Your task to perform on an android device: Go to CNN.com Image 0: 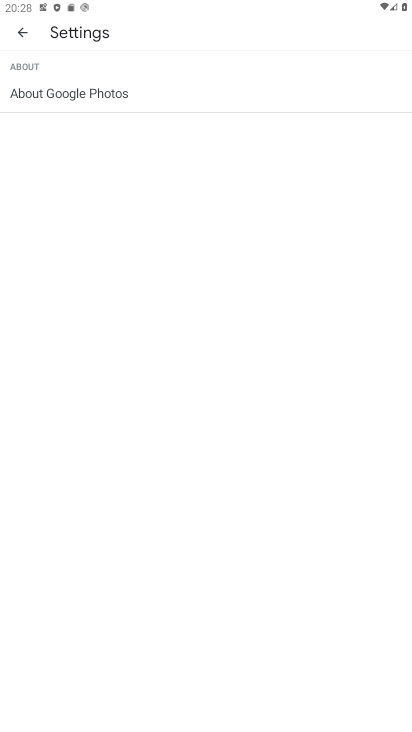
Step 0: press back button
Your task to perform on an android device: Go to CNN.com Image 1: 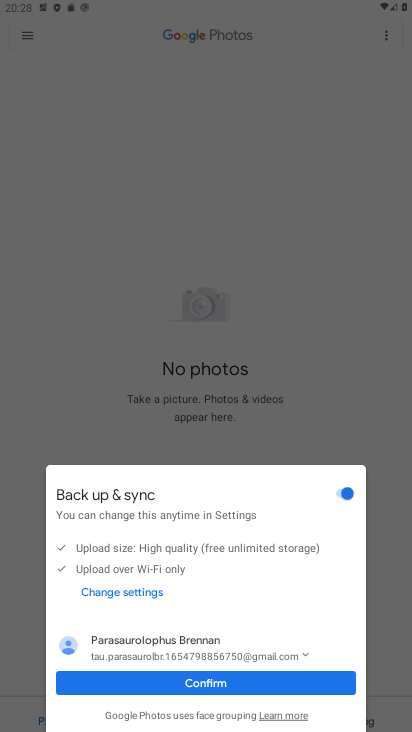
Step 1: press home button
Your task to perform on an android device: Go to CNN.com Image 2: 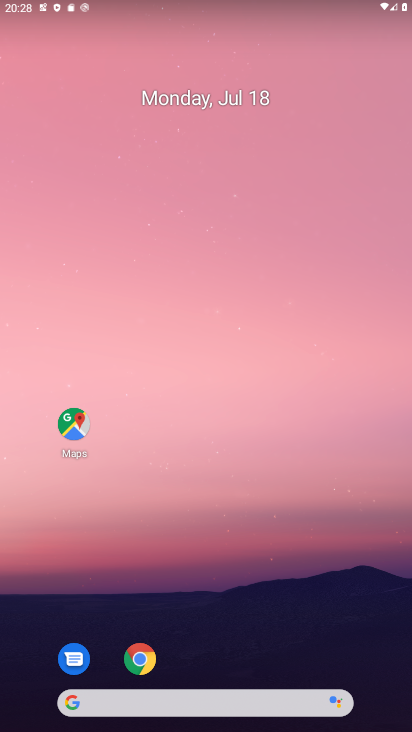
Step 2: drag from (259, 681) to (96, 145)
Your task to perform on an android device: Go to CNN.com Image 3: 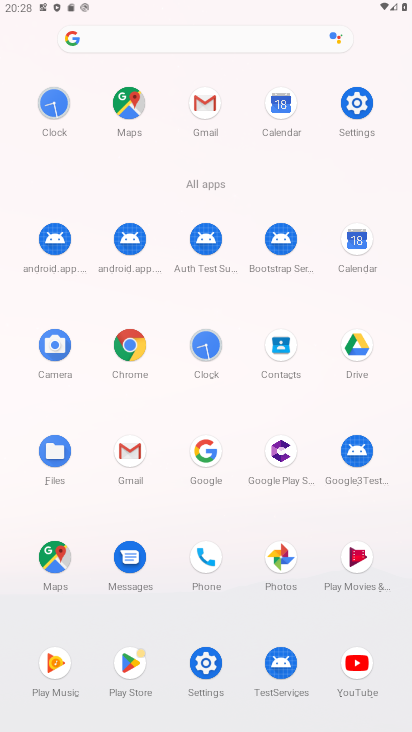
Step 3: click (354, 111)
Your task to perform on an android device: Go to CNN.com Image 4: 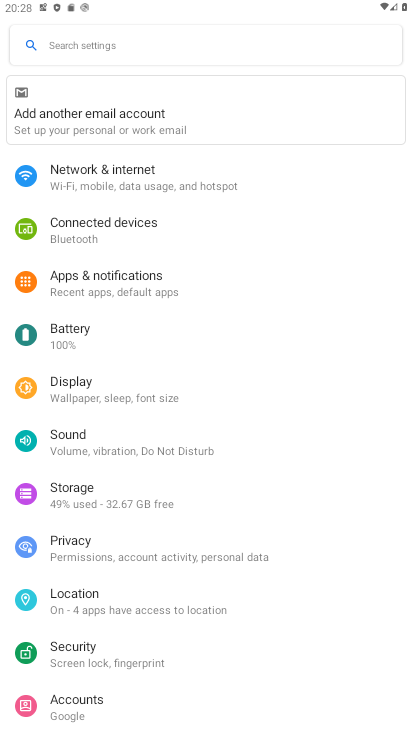
Step 4: press back button
Your task to perform on an android device: Go to CNN.com Image 5: 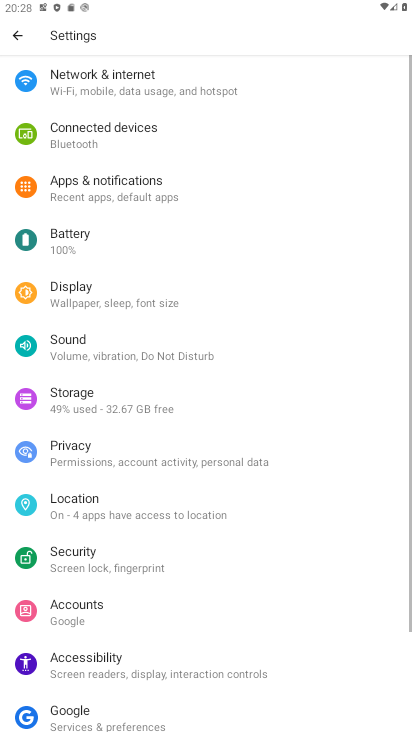
Step 5: press home button
Your task to perform on an android device: Go to CNN.com Image 6: 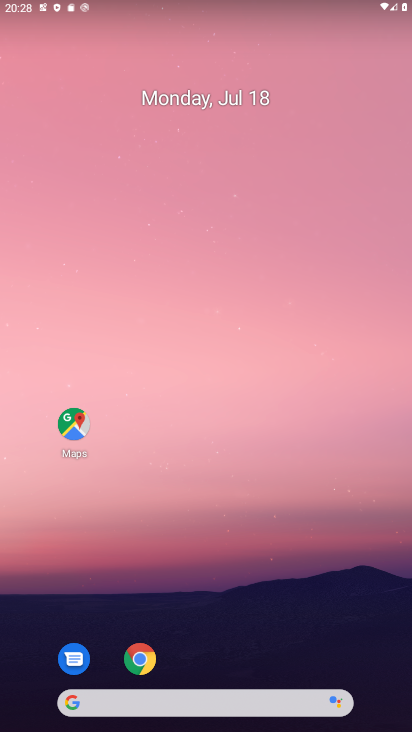
Step 6: drag from (242, 537) to (191, 160)
Your task to perform on an android device: Go to CNN.com Image 7: 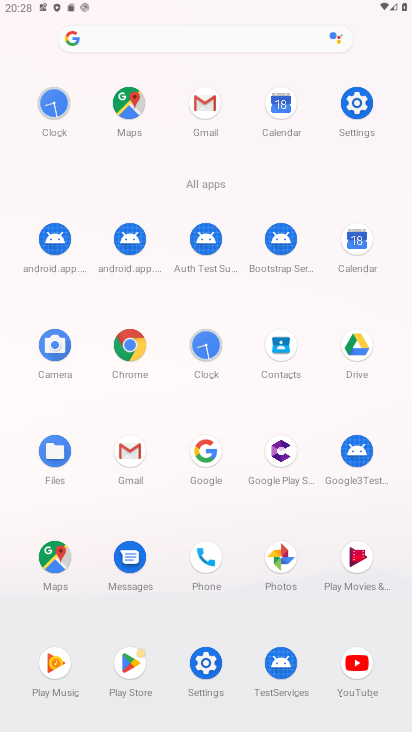
Step 7: click (356, 105)
Your task to perform on an android device: Go to CNN.com Image 8: 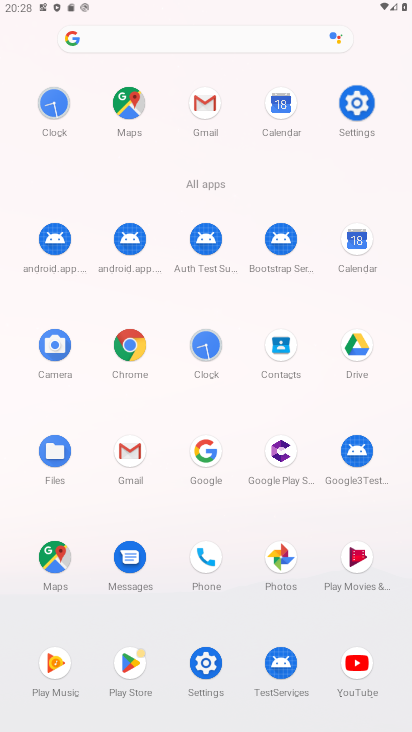
Step 8: click (357, 105)
Your task to perform on an android device: Go to CNN.com Image 9: 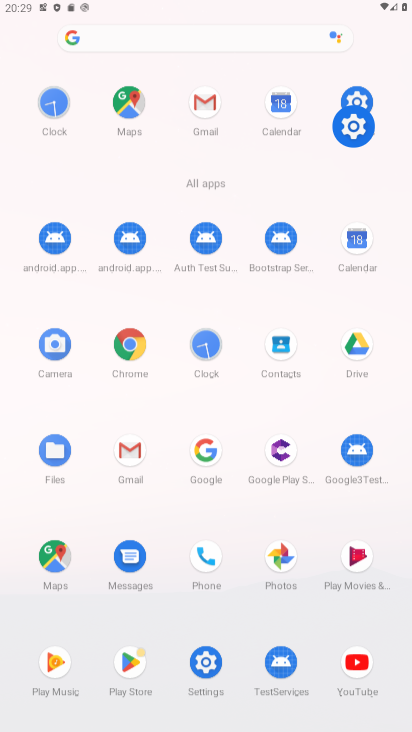
Step 9: click (359, 119)
Your task to perform on an android device: Go to CNN.com Image 10: 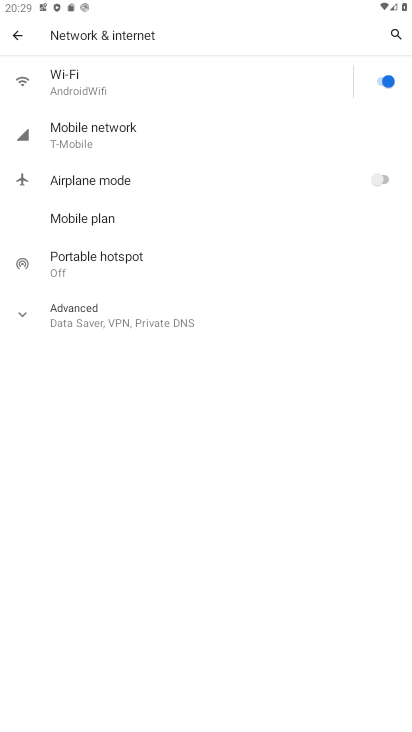
Step 10: press home button
Your task to perform on an android device: Go to CNN.com Image 11: 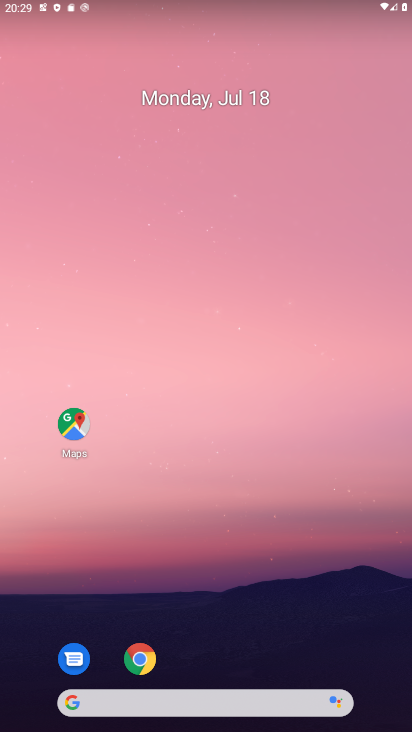
Step 11: click (199, 303)
Your task to perform on an android device: Go to CNN.com Image 12: 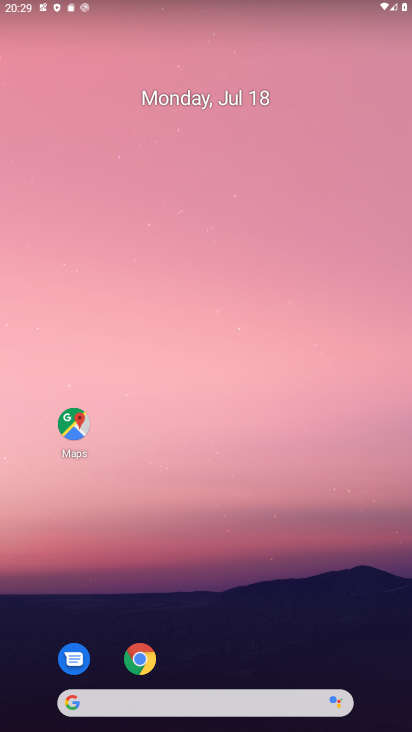
Step 12: drag from (287, 612) to (237, 167)
Your task to perform on an android device: Go to CNN.com Image 13: 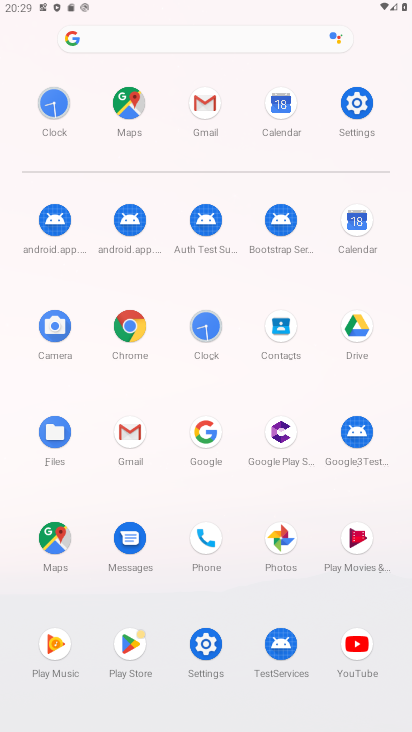
Step 13: drag from (178, 239) to (160, 117)
Your task to perform on an android device: Go to CNN.com Image 14: 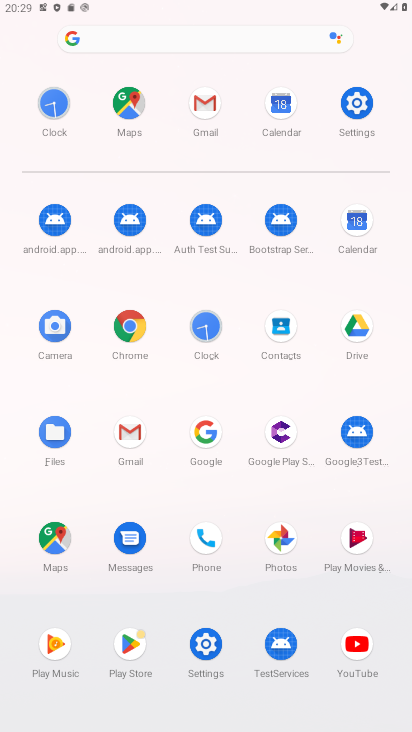
Step 14: click (137, 332)
Your task to perform on an android device: Go to CNN.com Image 15: 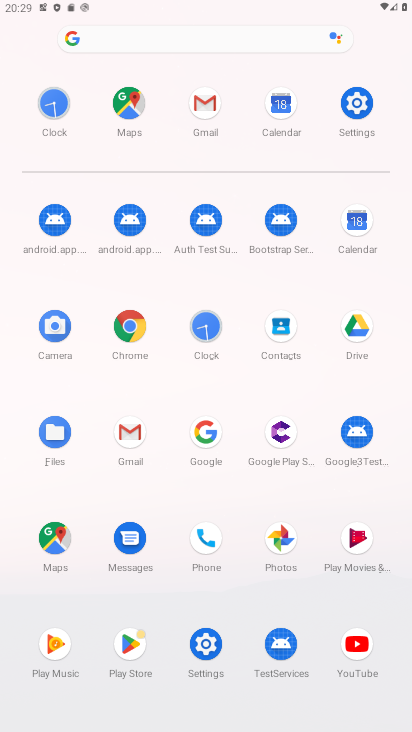
Step 15: click (137, 332)
Your task to perform on an android device: Go to CNN.com Image 16: 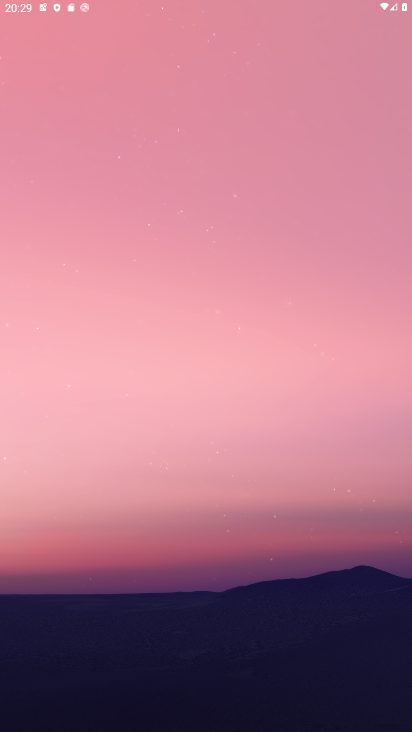
Step 16: click (137, 332)
Your task to perform on an android device: Go to CNN.com Image 17: 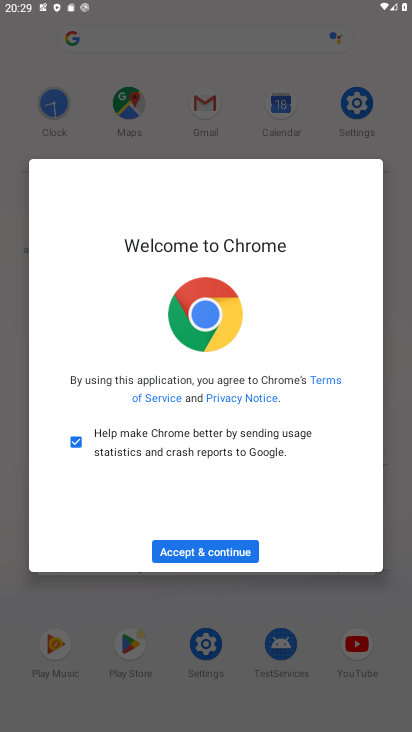
Step 17: click (240, 551)
Your task to perform on an android device: Go to CNN.com Image 18: 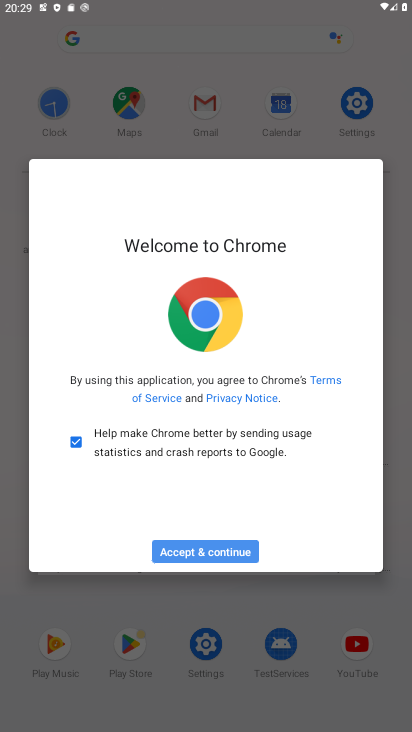
Step 18: click (240, 551)
Your task to perform on an android device: Go to CNN.com Image 19: 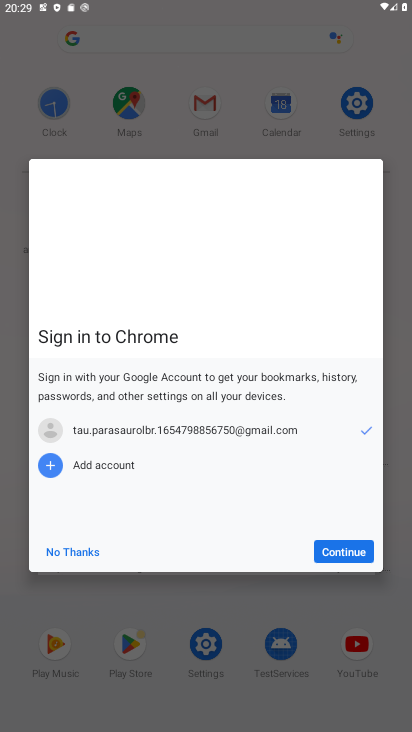
Step 19: click (331, 540)
Your task to perform on an android device: Go to CNN.com Image 20: 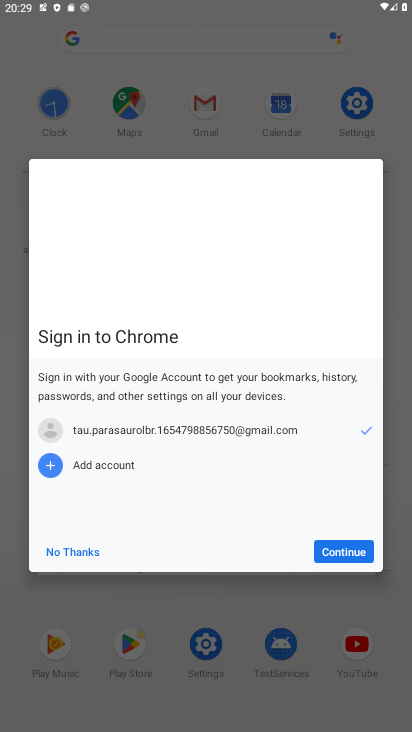
Step 20: click (341, 550)
Your task to perform on an android device: Go to CNN.com Image 21: 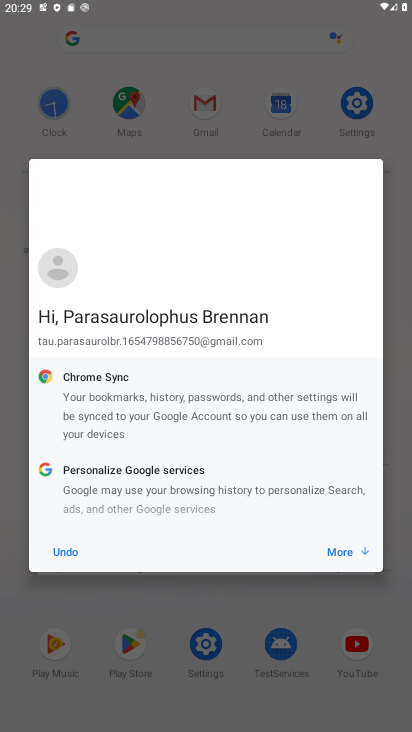
Step 21: click (347, 549)
Your task to perform on an android device: Go to CNN.com Image 22: 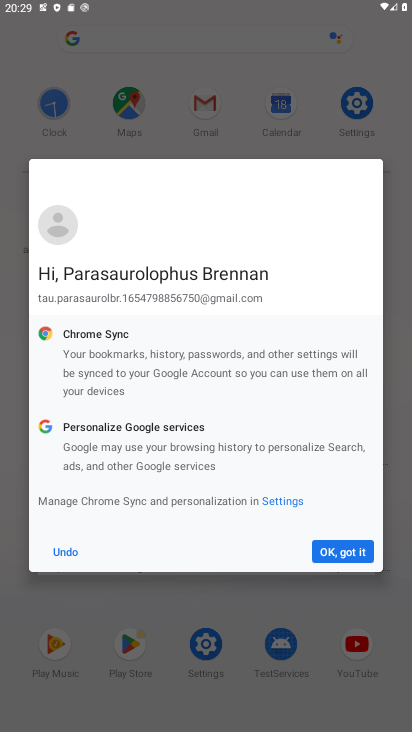
Step 22: click (348, 549)
Your task to perform on an android device: Go to CNN.com Image 23: 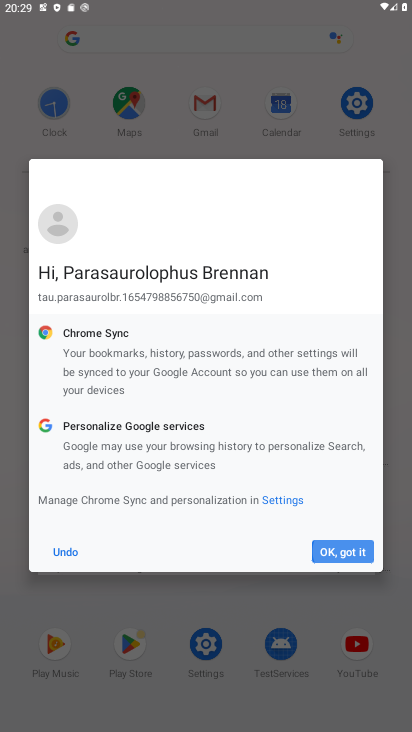
Step 23: click (348, 548)
Your task to perform on an android device: Go to CNN.com Image 24: 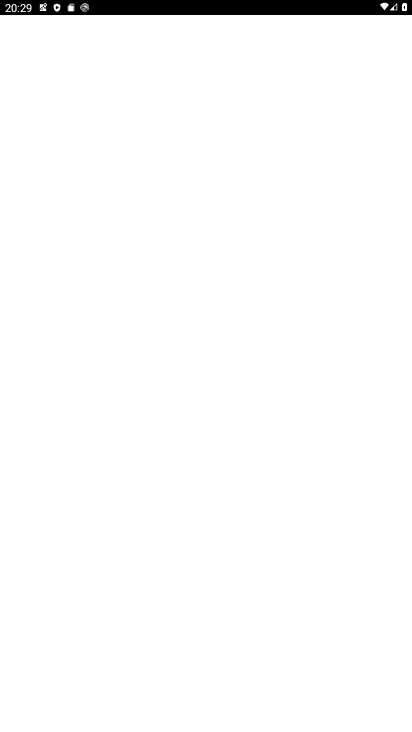
Step 24: click (352, 545)
Your task to perform on an android device: Go to CNN.com Image 25: 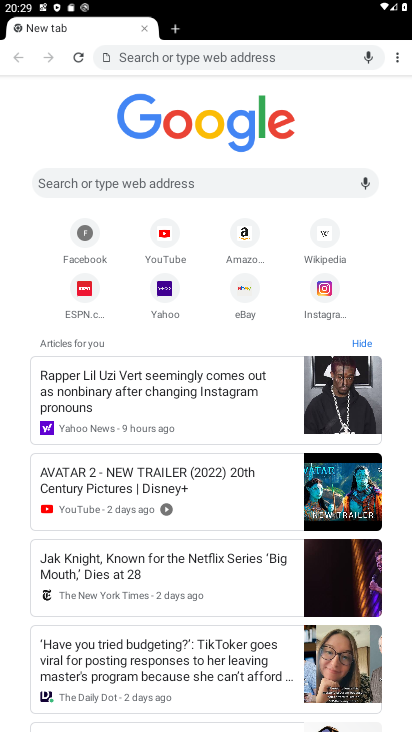
Step 25: type "CNN.com"
Your task to perform on an android device: Go to CNN.com Image 26: 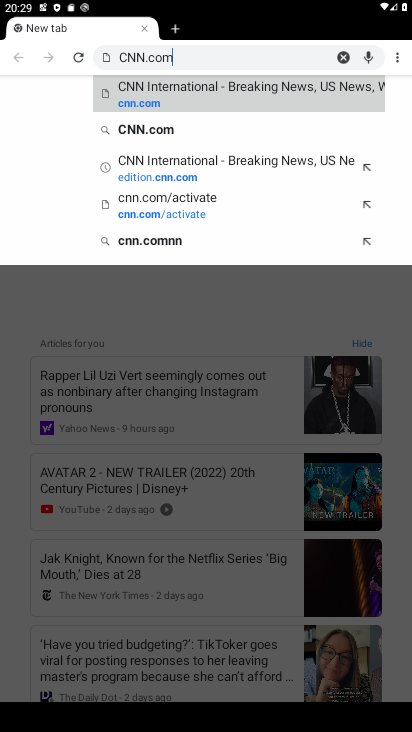
Step 26: click (150, 85)
Your task to perform on an android device: Go to CNN.com Image 27: 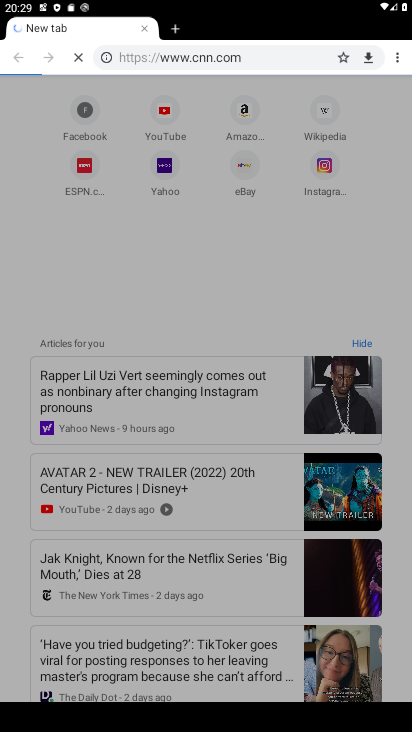
Step 27: click (150, 85)
Your task to perform on an android device: Go to CNN.com Image 28: 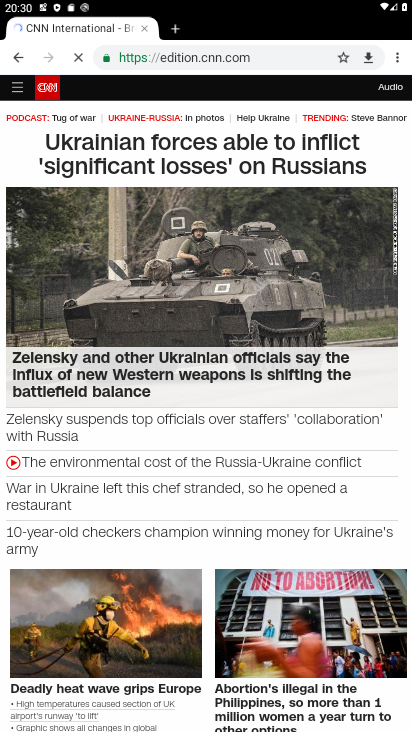
Step 28: task complete